Your task to perform on an android device: turn off javascript in the chrome app Image 0: 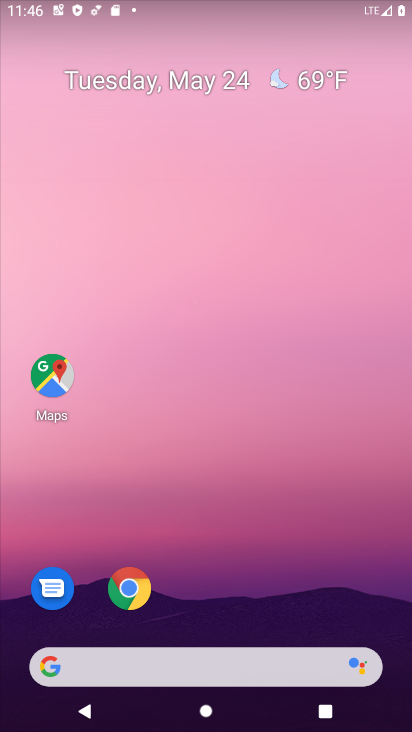
Step 0: click (124, 585)
Your task to perform on an android device: turn off javascript in the chrome app Image 1: 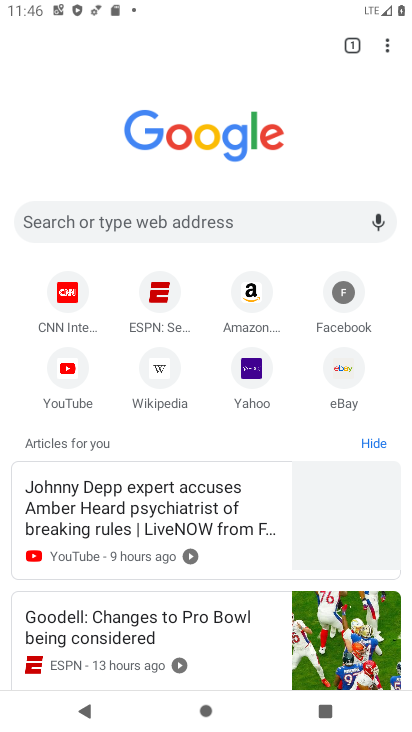
Step 1: click (387, 44)
Your task to perform on an android device: turn off javascript in the chrome app Image 2: 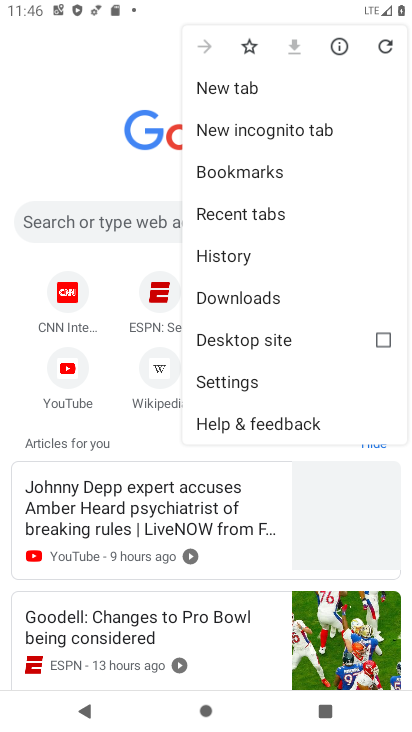
Step 2: click (261, 375)
Your task to perform on an android device: turn off javascript in the chrome app Image 3: 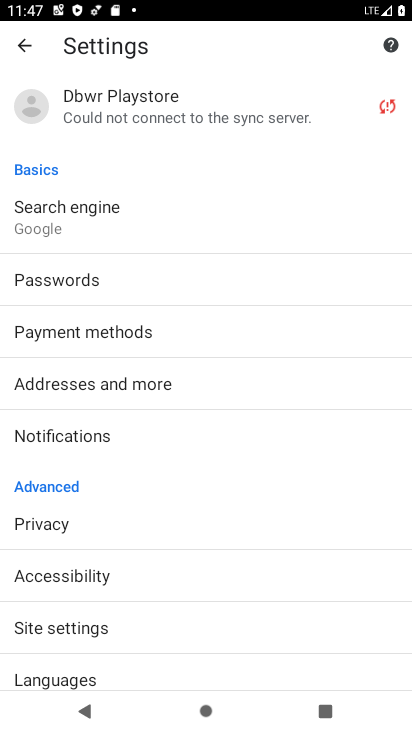
Step 3: drag from (144, 677) to (187, 180)
Your task to perform on an android device: turn off javascript in the chrome app Image 4: 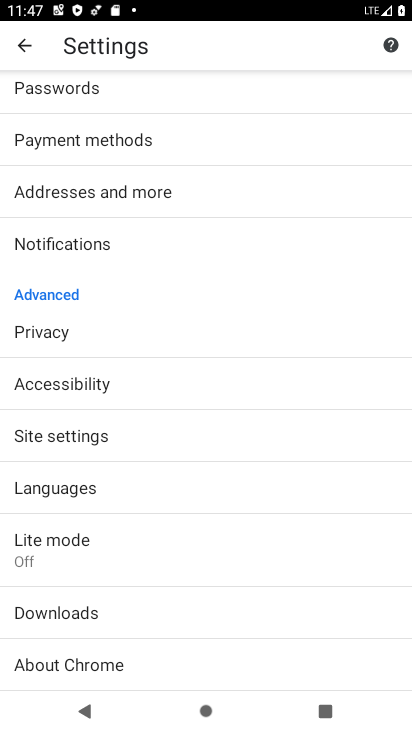
Step 4: click (123, 434)
Your task to perform on an android device: turn off javascript in the chrome app Image 5: 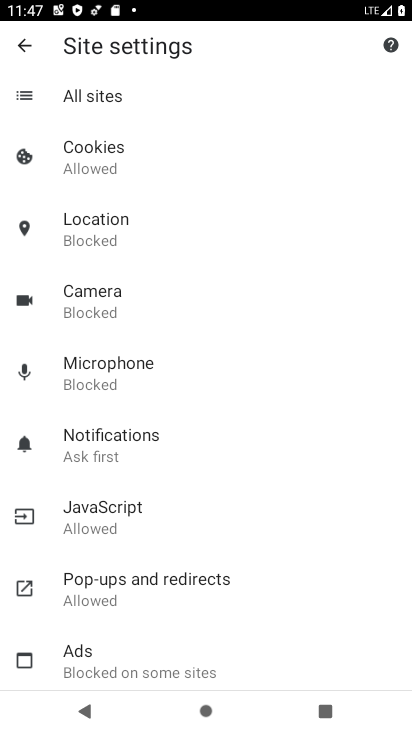
Step 5: click (150, 512)
Your task to perform on an android device: turn off javascript in the chrome app Image 6: 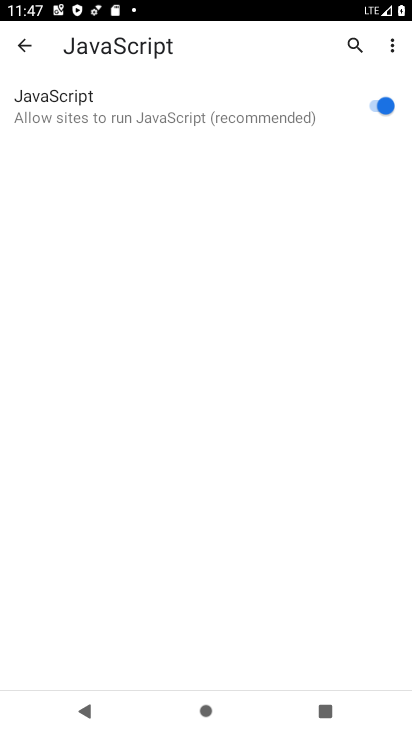
Step 6: click (380, 102)
Your task to perform on an android device: turn off javascript in the chrome app Image 7: 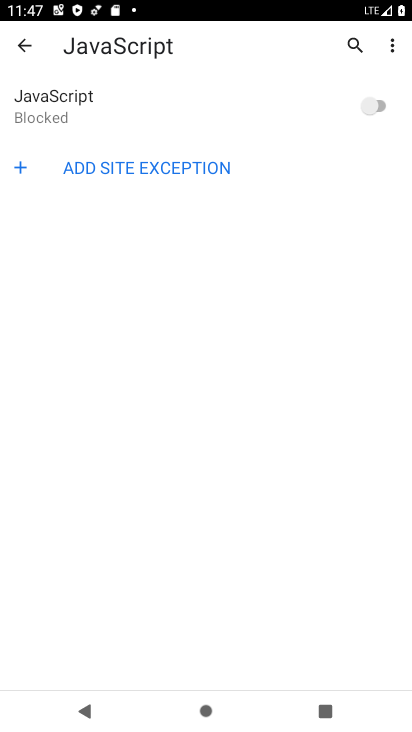
Step 7: task complete